Your task to perform on an android device: Search for Italian restaurants on Maps Image 0: 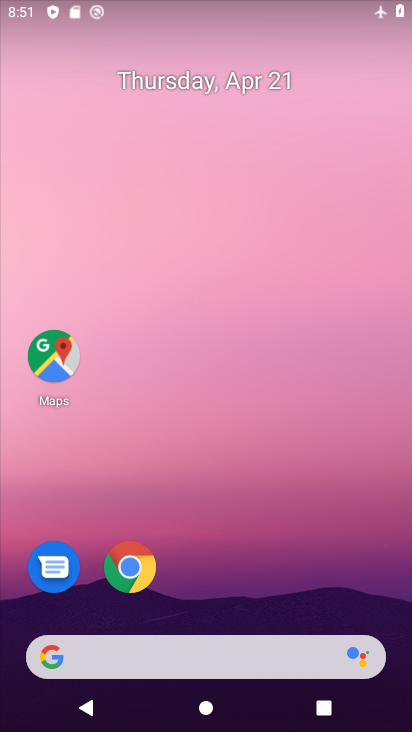
Step 0: click (53, 357)
Your task to perform on an android device: Search for Italian restaurants on Maps Image 1: 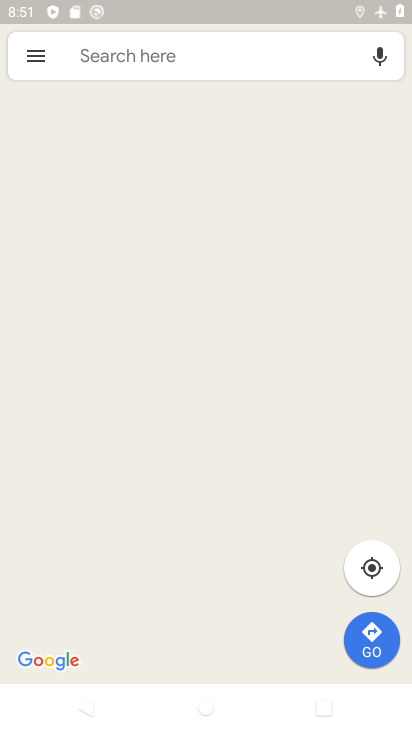
Step 1: click (124, 49)
Your task to perform on an android device: Search for Italian restaurants on Maps Image 2: 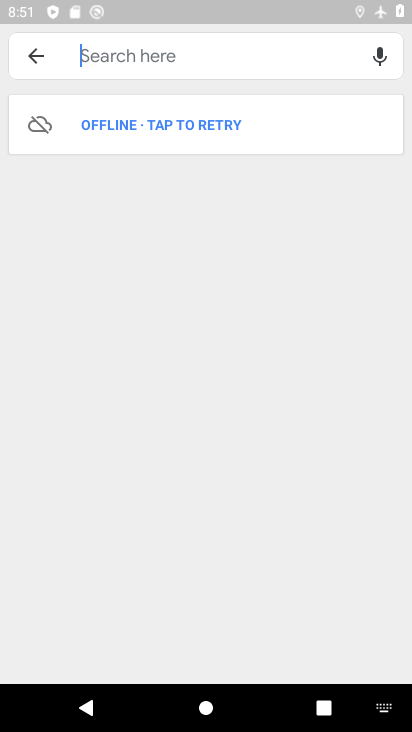
Step 2: click (191, 116)
Your task to perform on an android device: Search for Italian restaurants on Maps Image 3: 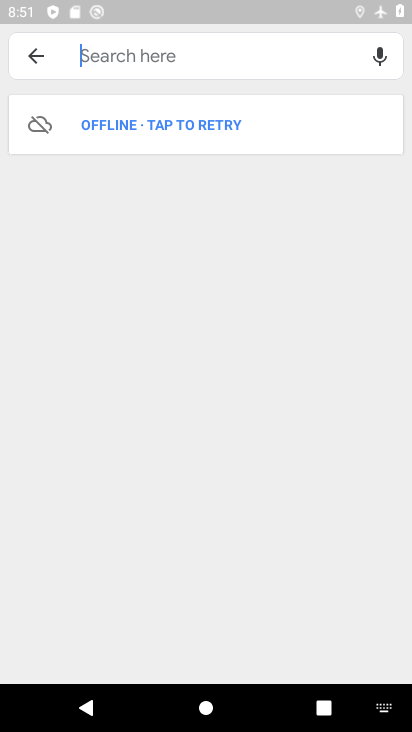
Step 3: click (194, 121)
Your task to perform on an android device: Search for Italian restaurants on Maps Image 4: 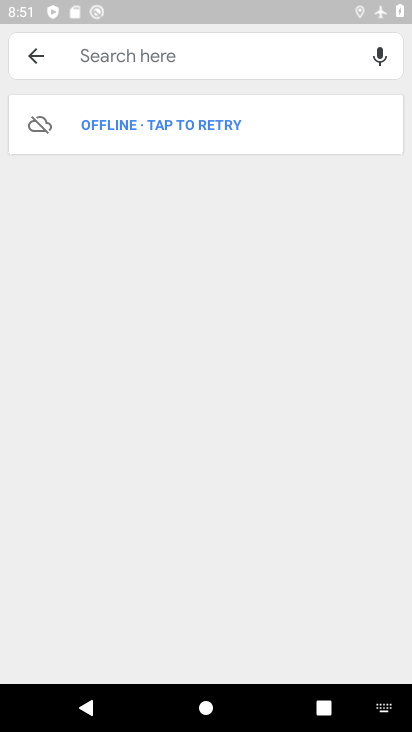
Step 4: click (190, 122)
Your task to perform on an android device: Search for Italian restaurants on Maps Image 5: 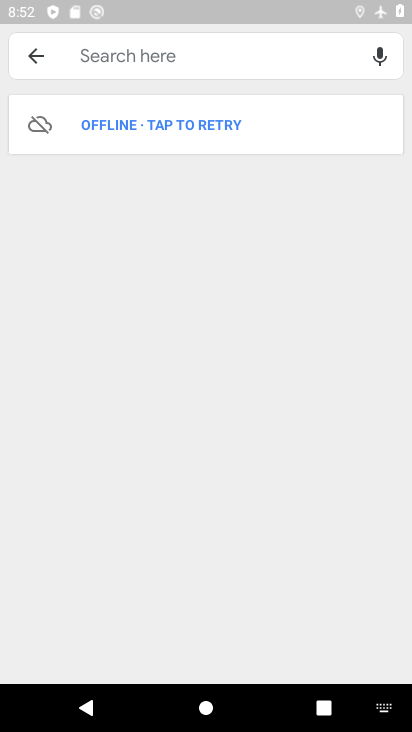
Step 5: press home button
Your task to perform on an android device: Search for Italian restaurants on Maps Image 6: 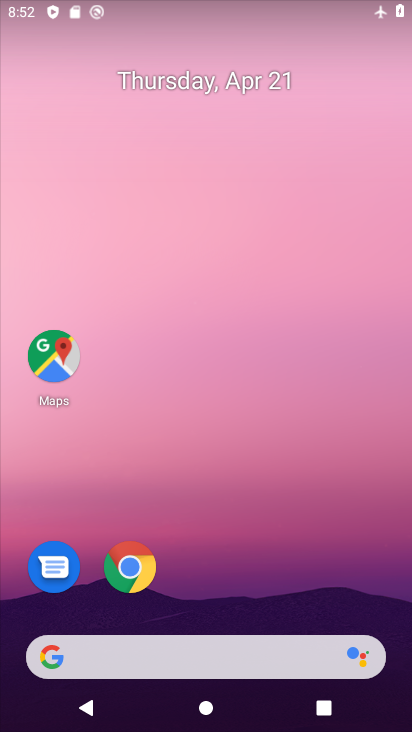
Step 6: drag from (319, 601) to (281, 123)
Your task to perform on an android device: Search for Italian restaurants on Maps Image 7: 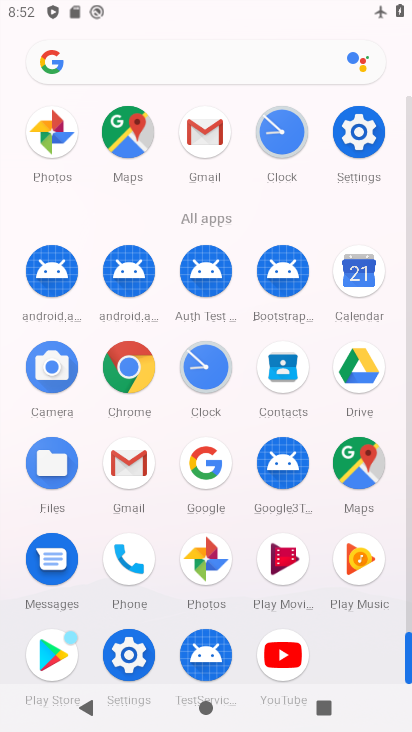
Step 7: click (358, 460)
Your task to perform on an android device: Search for Italian restaurants on Maps Image 8: 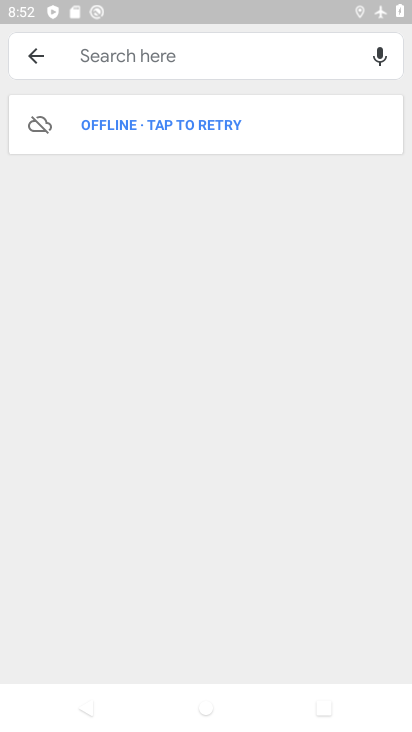
Step 8: task complete